Your task to perform on an android device: Open privacy settings Image 0: 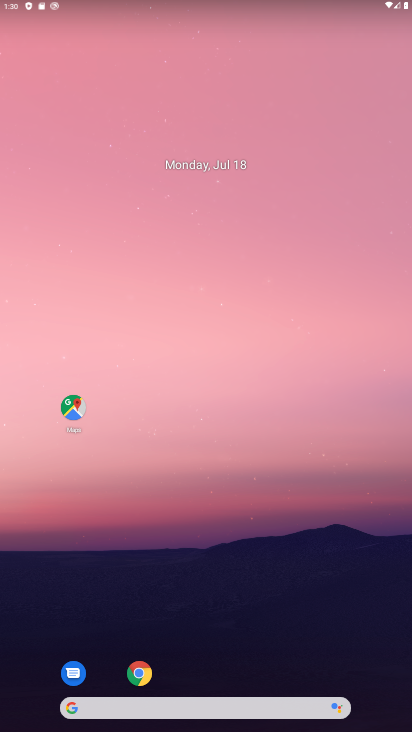
Step 0: drag from (302, 700) to (236, 122)
Your task to perform on an android device: Open privacy settings Image 1: 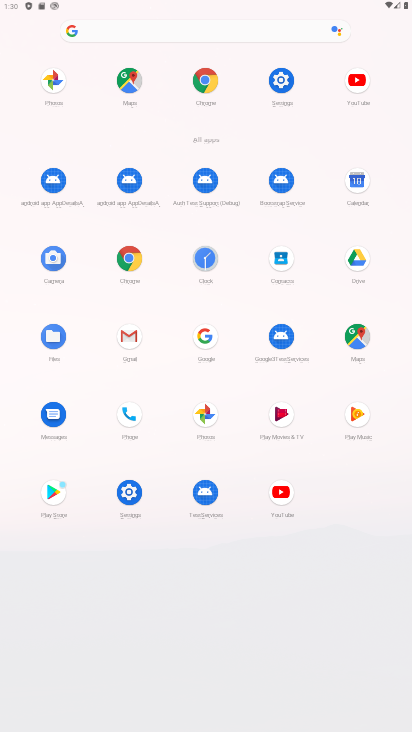
Step 1: drag from (134, 493) to (298, 477)
Your task to perform on an android device: Open privacy settings Image 2: 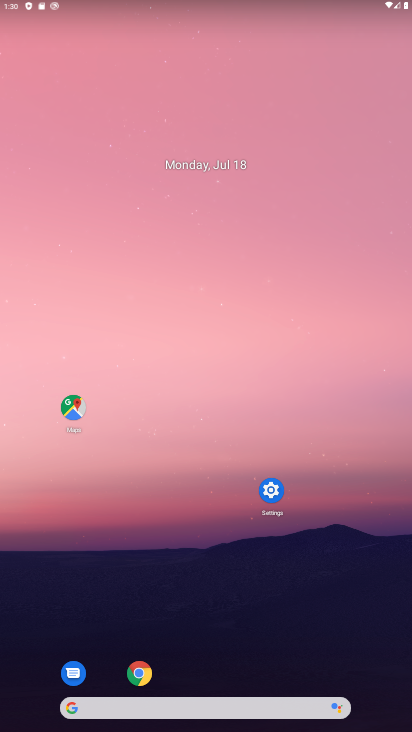
Step 2: click (272, 498)
Your task to perform on an android device: Open privacy settings Image 3: 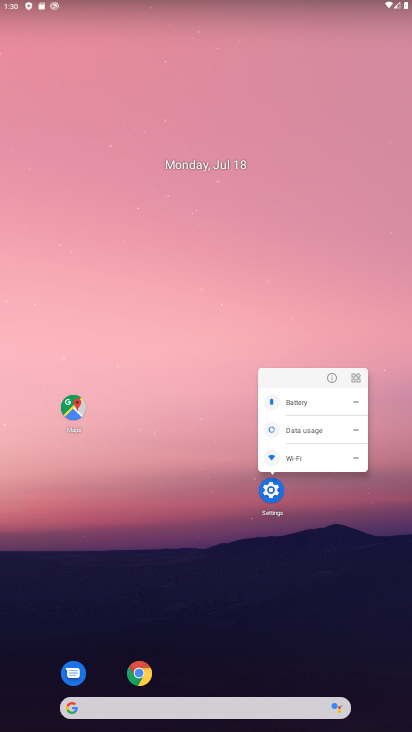
Step 3: click (274, 493)
Your task to perform on an android device: Open privacy settings Image 4: 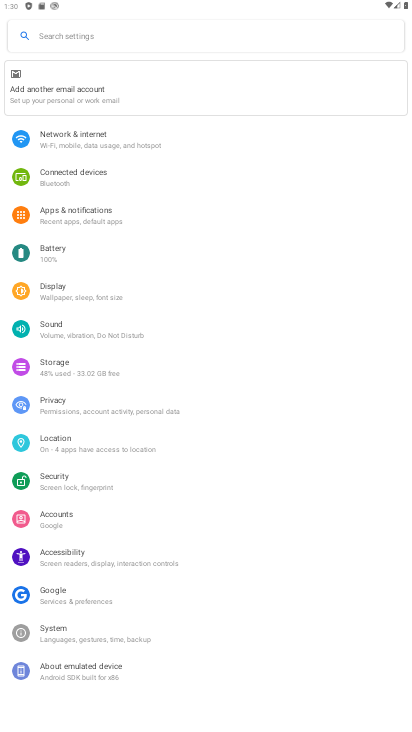
Step 4: click (88, 404)
Your task to perform on an android device: Open privacy settings Image 5: 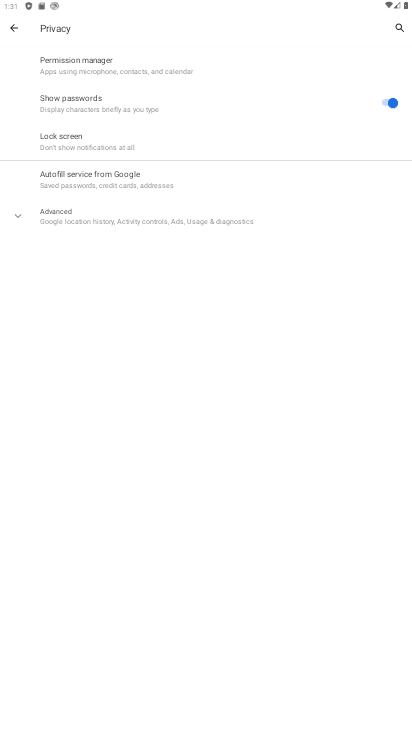
Step 5: task complete